Your task to perform on an android device: Open the stopwatch Image 0: 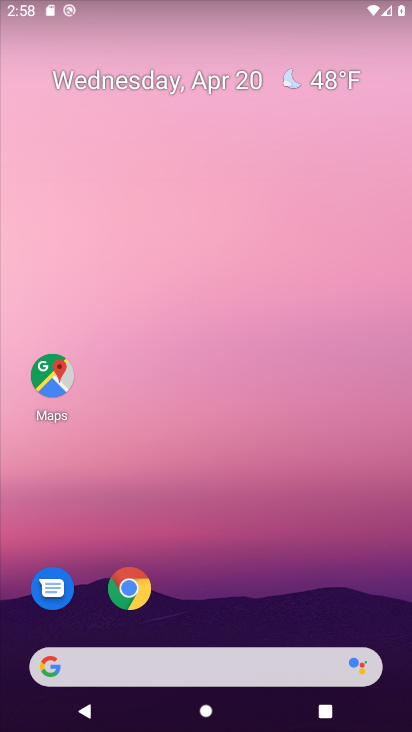
Step 0: drag from (336, 598) to (345, 185)
Your task to perform on an android device: Open the stopwatch Image 1: 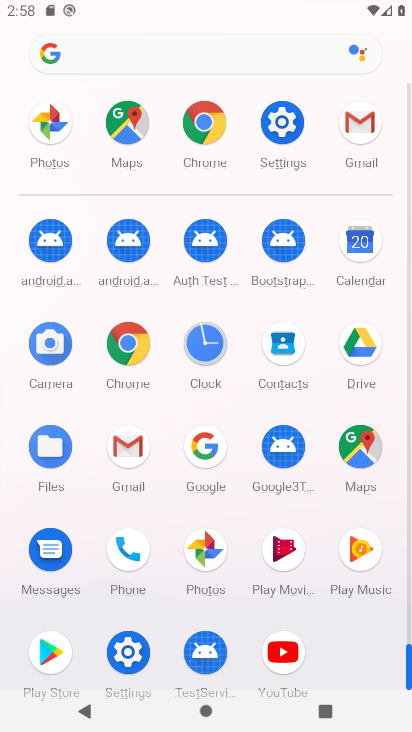
Step 1: click (179, 346)
Your task to perform on an android device: Open the stopwatch Image 2: 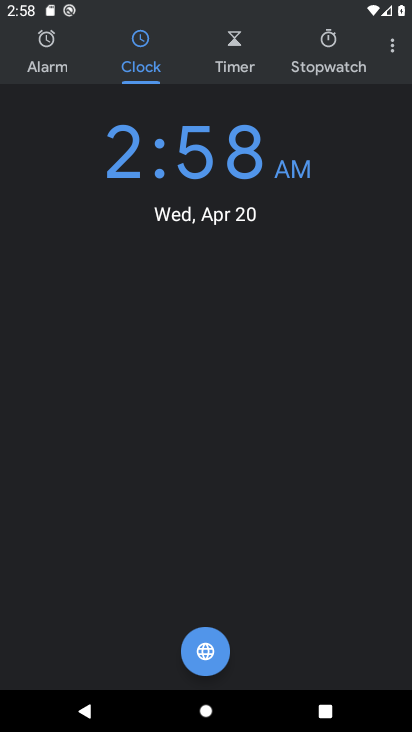
Step 2: click (326, 40)
Your task to perform on an android device: Open the stopwatch Image 3: 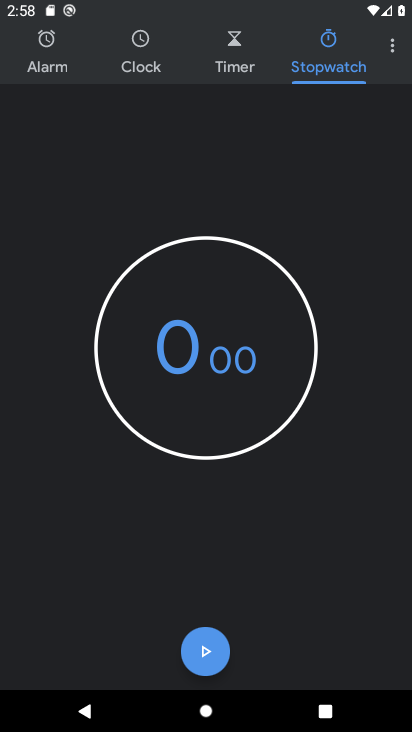
Step 3: task complete